Your task to perform on an android device: toggle airplane mode Image 0: 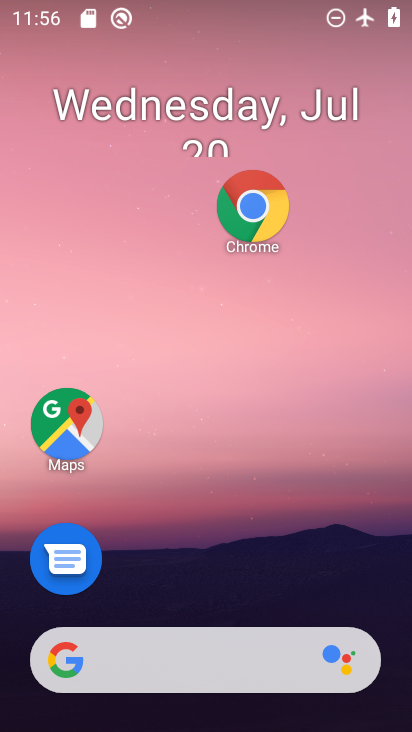
Step 0: drag from (184, 571) to (191, 186)
Your task to perform on an android device: toggle airplane mode Image 1: 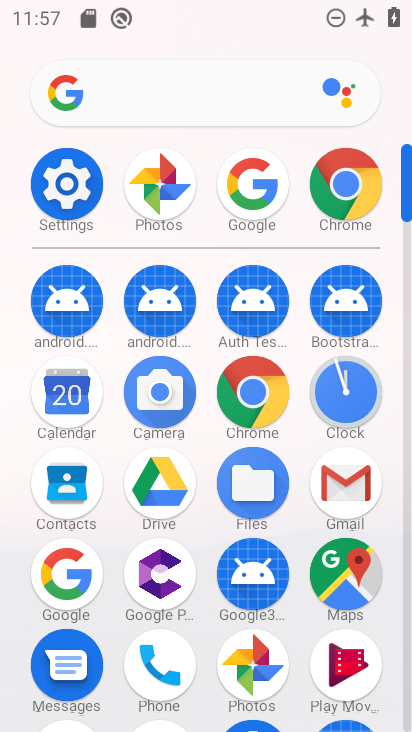
Step 1: click (80, 195)
Your task to perform on an android device: toggle airplane mode Image 2: 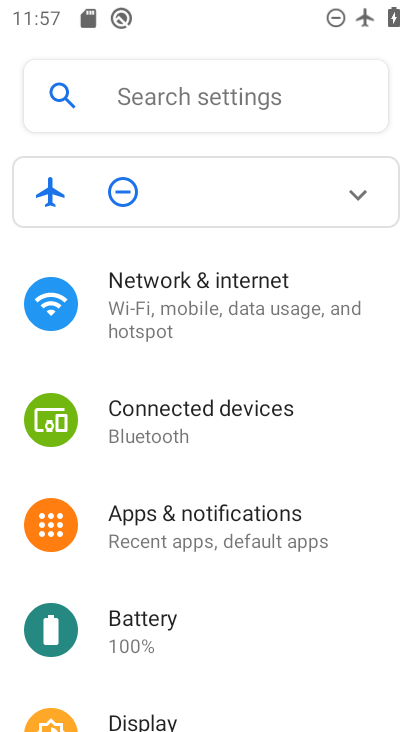
Step 2: click (176, 304)
Your task to perform on an android device: toggle airplane mode Image 3: 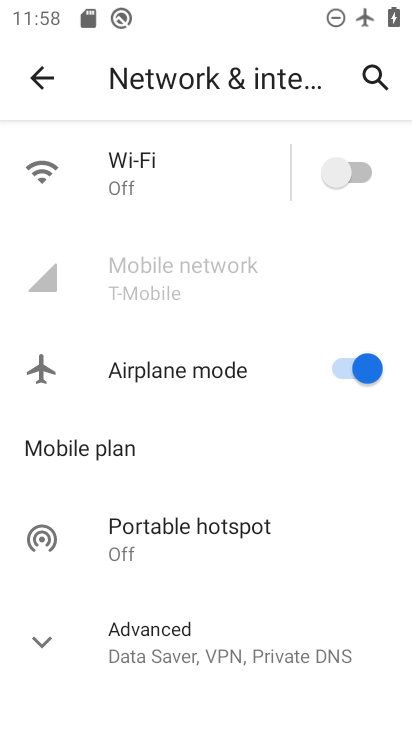
Step 3: drag from (206, 570) to (184, 296)
Your task to perform on an android device: toggle airplane mode Image 4: 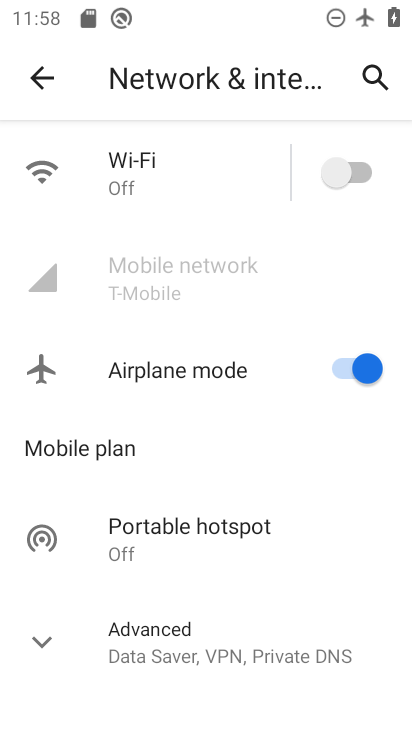
Step 4: click (331, 374)
Your task to perform on an android device: toggle airplane mode Image 5: 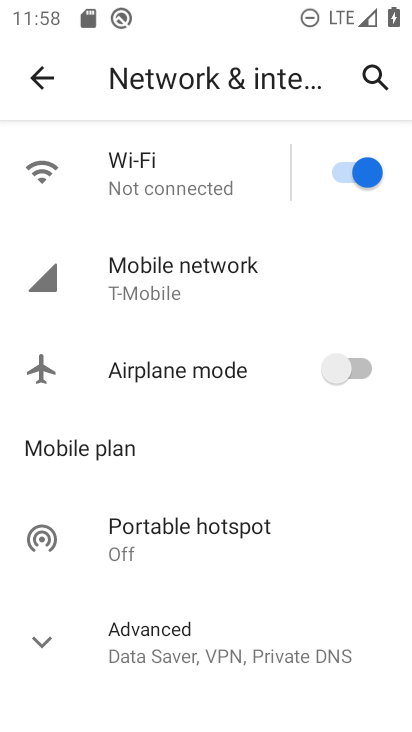
Step 5: task complete